Your task to perform on an android device: Open wifi settings Image 0: 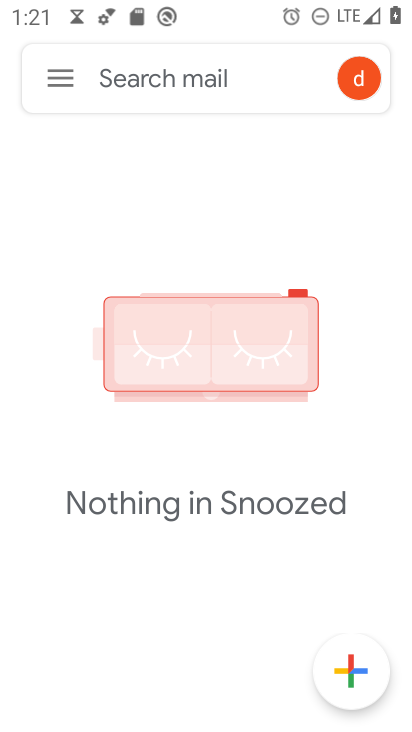
Step 0: press home button
Your task to perform on an android device: Open wifi settings Image 1: 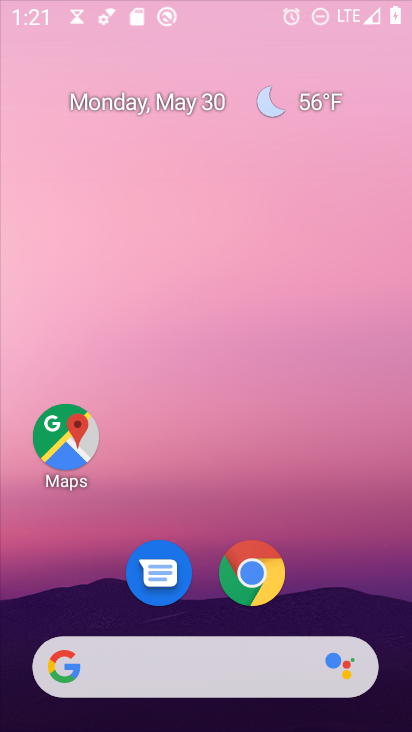
Step 1: drag from (246, 648) to (291, 72)
Your task to perform on an android device: Open wifi settings Image 2: 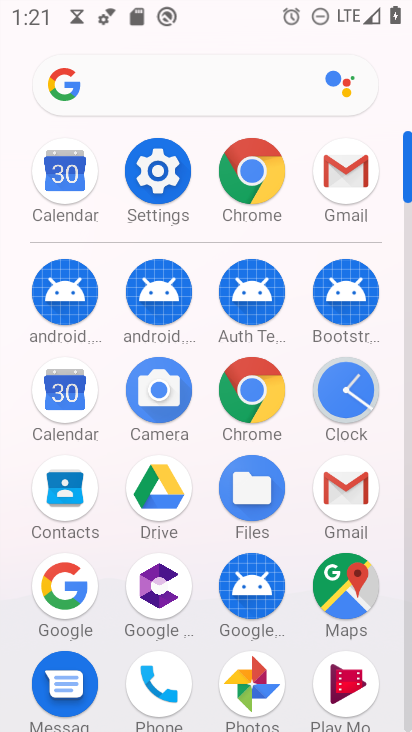
Step 2: click (168, 182)
Your task to perform on an android device: Open wifi settings Image 3: 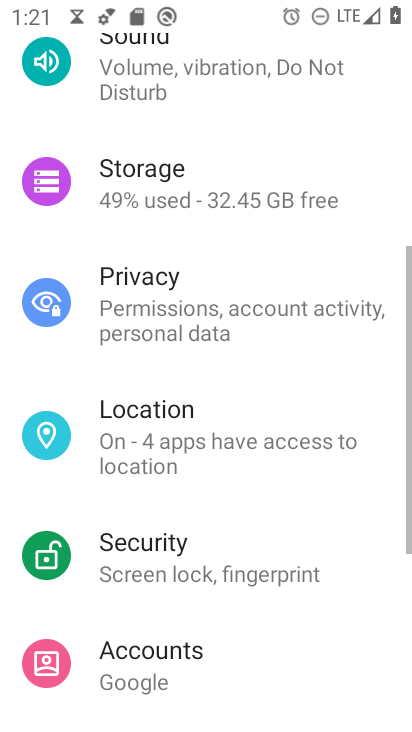
Step 3: drag from (217, 221) to (181, 712)
Your task to perform on an android device: Open wifi settings Image 4: 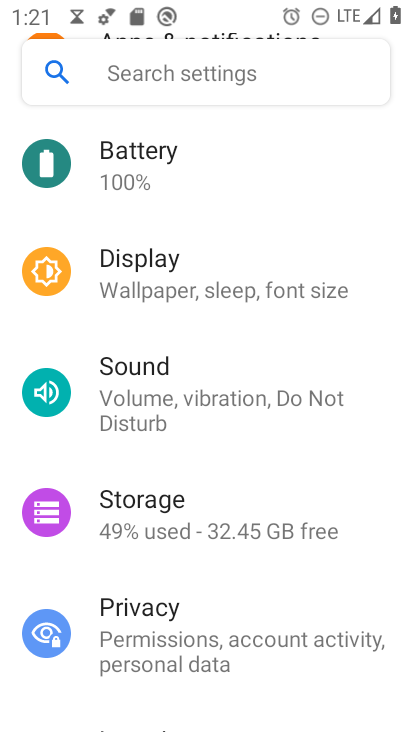
Step 4: drag from (212, 373) to (202, 710)
Your task to perform on an android device: Open wifi settings Image 5: 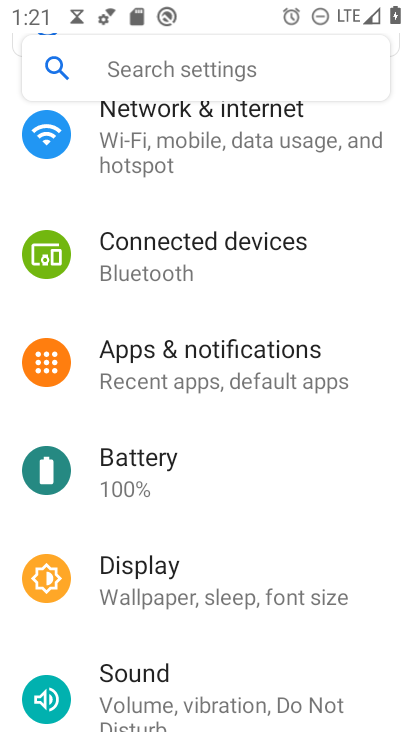
Step 5: drag from (213, 200) to (184, 695)
Your task to perform on an android device: Open wifi settings Image 6: 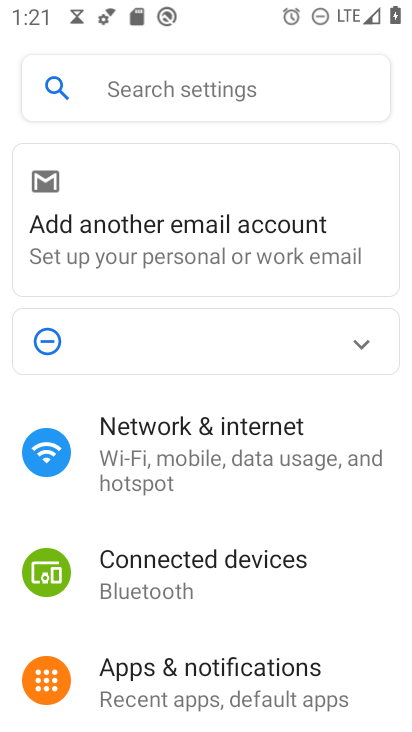
Step 6: click (210, 443)
Your task to perform on an android device: Open wifi settings Image 7: 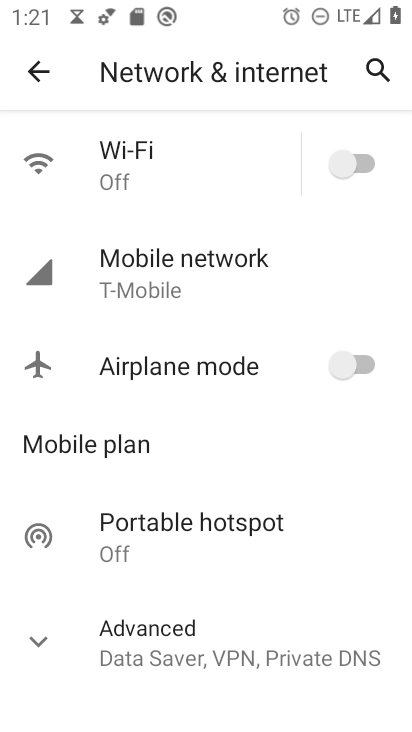
Step 7: click (175, 154)
Your task to perform on an android device: Open wifi settings Image 8: 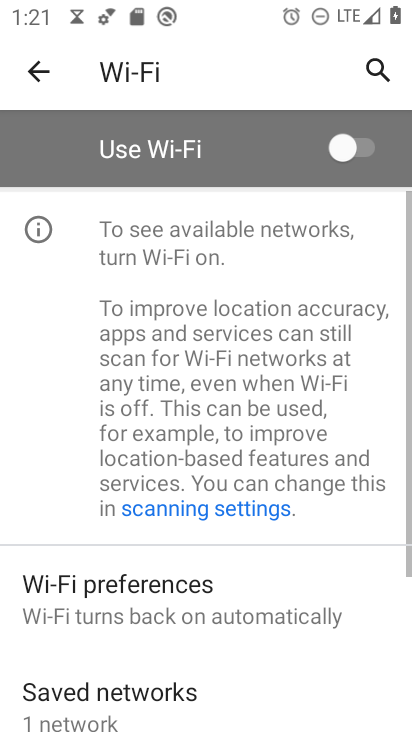
Step 8: task complete